Your task to perform on an android device: allow cookies in the chrome app Image 0: 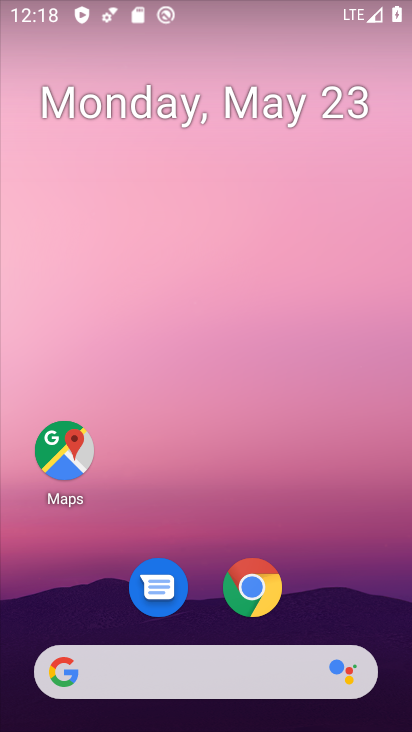
Step 0: click (245, 588)
Your task to perform on an android device: allow cookies in the chrome app Image 1: 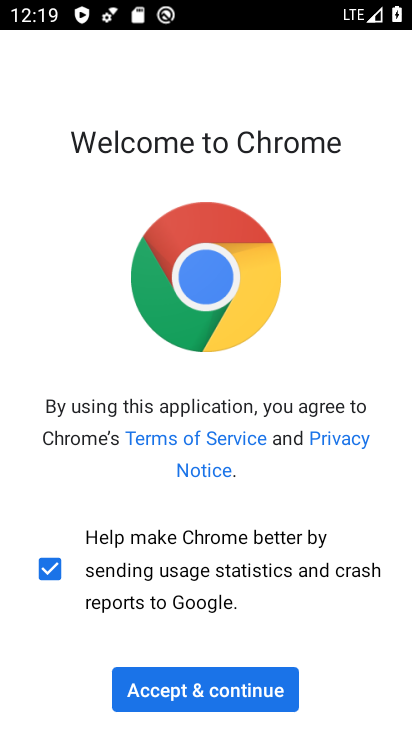
Step 1: click (221, 667)
Your task to perform on an android device: allow cookies in the chrome app Image 2: 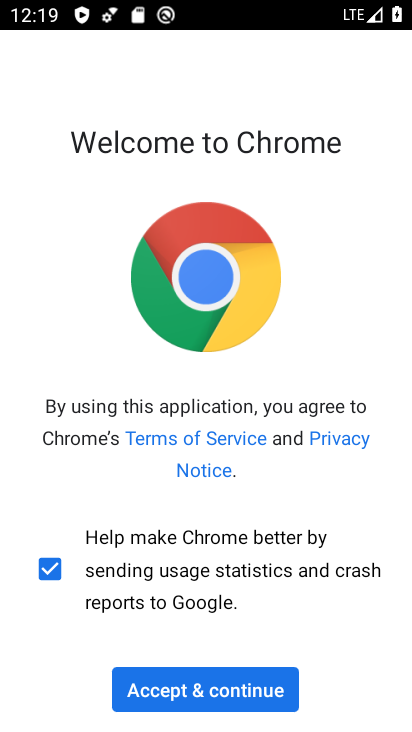
Step 2: click (227, 682)
Your task to perform on an android device: allow cookies in the chrome app Image 3: 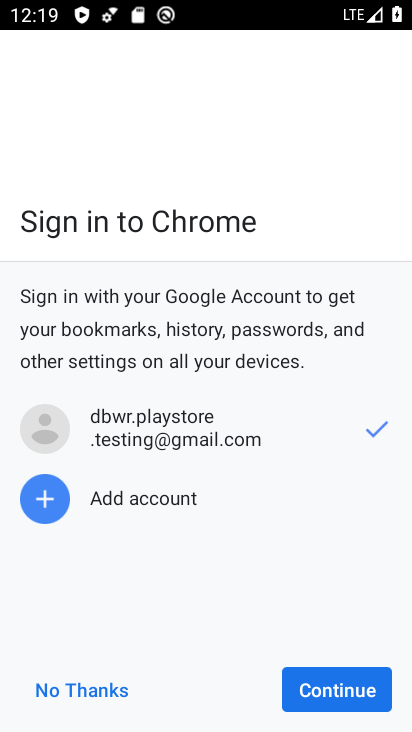
Step 3: click (380, 694)
Your task to perform on an android device: allow cookies in the chrome app Image 4: 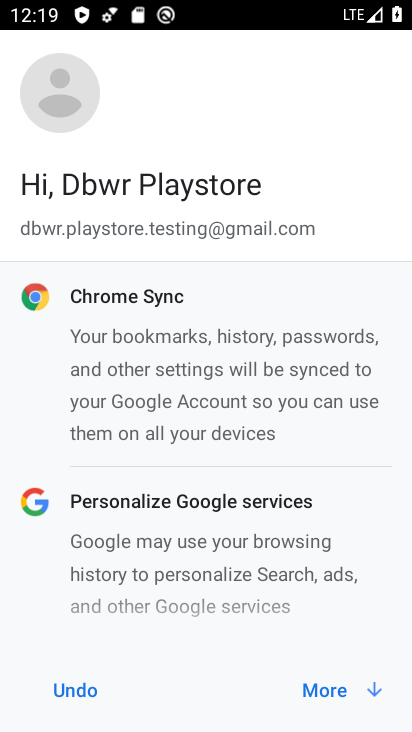
Step 4: click (350, 688)
Your task to perform on an android device: allow cookies in the chrome app Image 5: 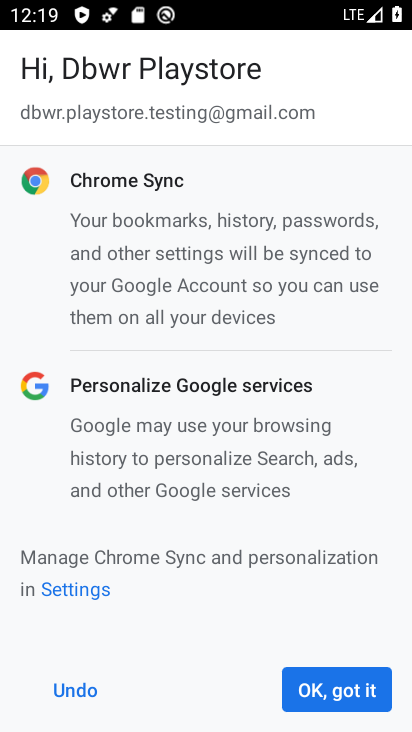
Step 5: click (349, 688)
Your task to perform on an android device: allow cookies in the chrome app Image 6: 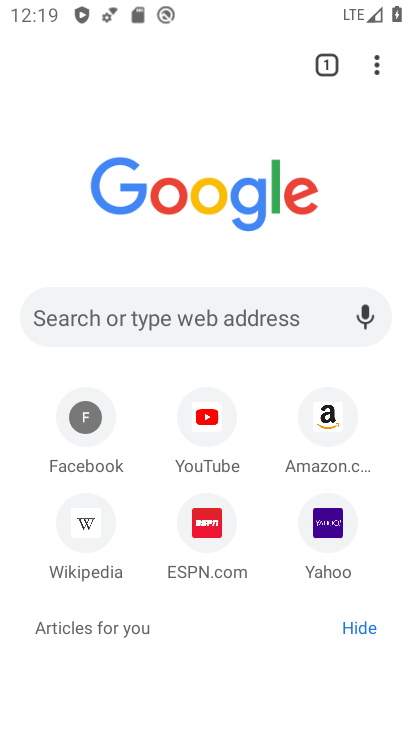
Step 6: drag from (379, 69) to (180, 534)
Your task to perform on an android device: allow cookies in the chrome app Image 7: 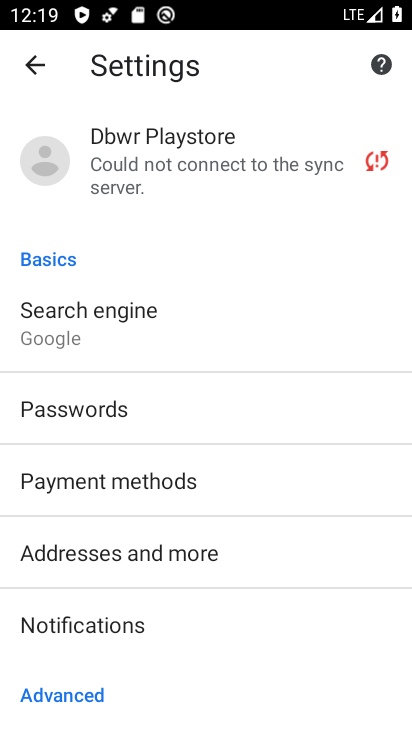
Step 7: drag from (115, 632) to (213, 124)
Your task to perform on an android device: allow cookies in the chrome app Image 8: 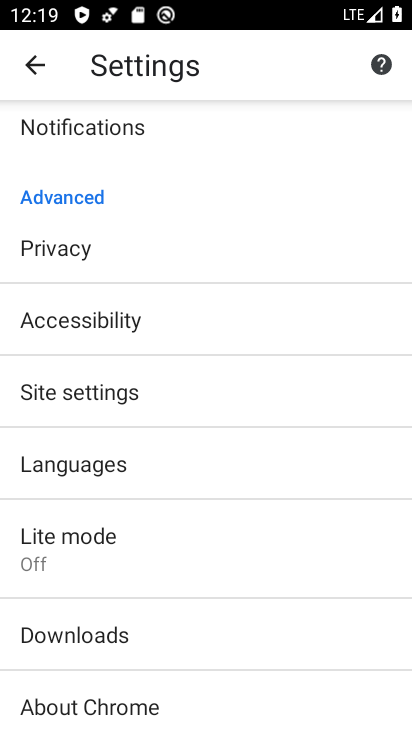
Step 8: click (113, 391)
Your task to perform on an android device: allow cookies in the chrome app Image 9: 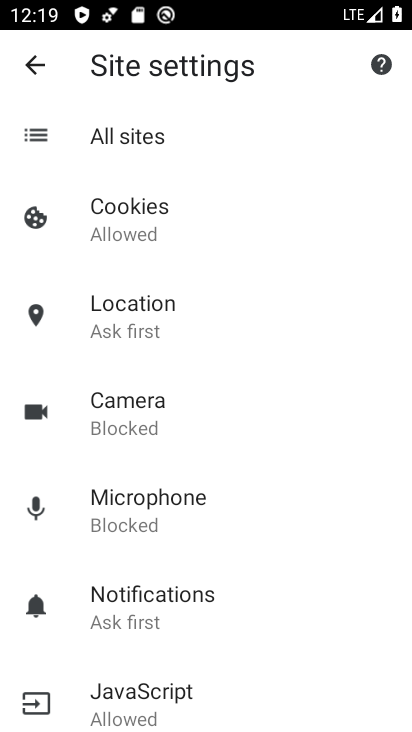
Step 9: click (167, 220)
Your task to perform on an android device: allow cookies in the chrome app Image 10: 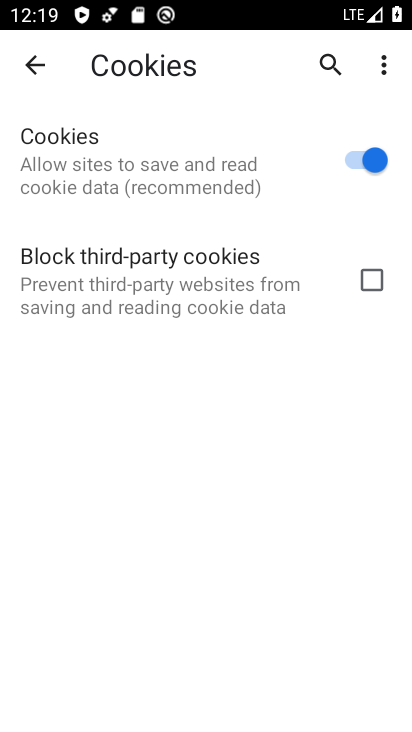
Step 10: task complete